Your task to perform on an android device: uninstall "Spotify" Image 0: 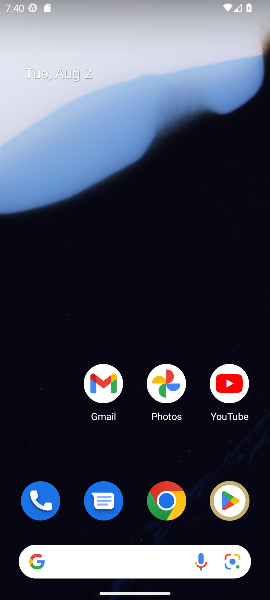
Step 0: drag from (136, 448) to (168, 102)
Your task to perform on an android device: uninstall "Spotify" Image 1: 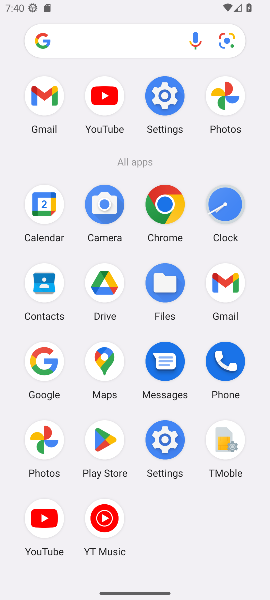
Step 1: click (105, 443)
Your task to perform on an android device: uninstall "Spotify" Image 2: 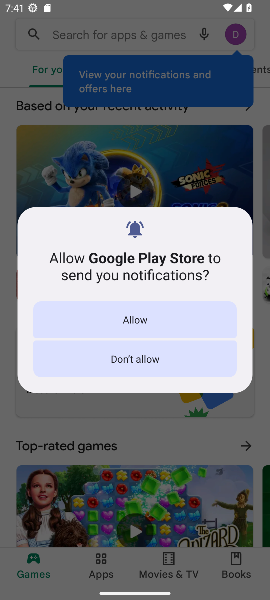
Step 2: press home button
Your task to perform on an android device: uninstall "Spotify" Image 3: 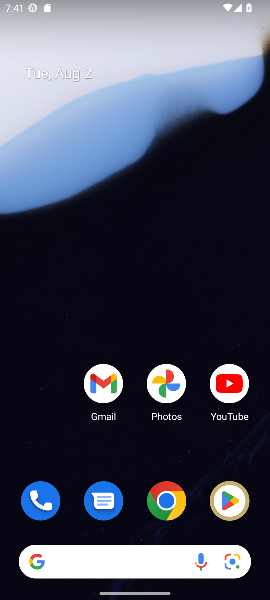
Step 3: drag from (115, 473) to (150, 95)
Your task to perform on an android device: uninstall "Spotify" Image 4: 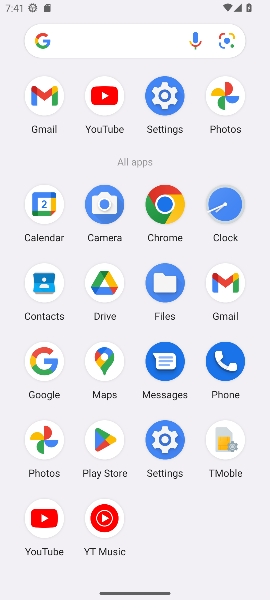
Step 4: click (174, 101)
Your task to perform on an android device: uninstall "Spotify" Image 5: 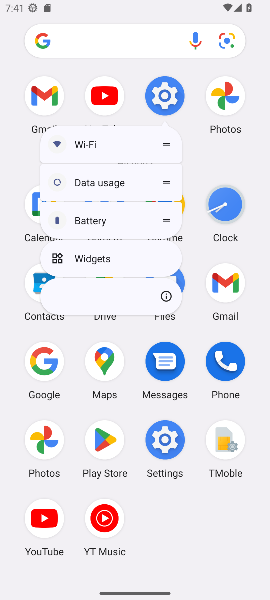
Step 5: click (99, 449)
Your task to perform on an android device: uninstall "Spotify" Image 6: 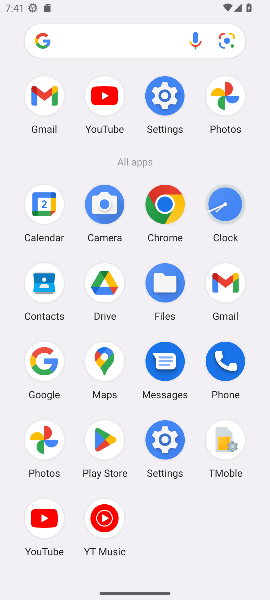
Step 6: click (99, 449)
Your task to perform on an android device: uninstall "Spotify" Image 7: 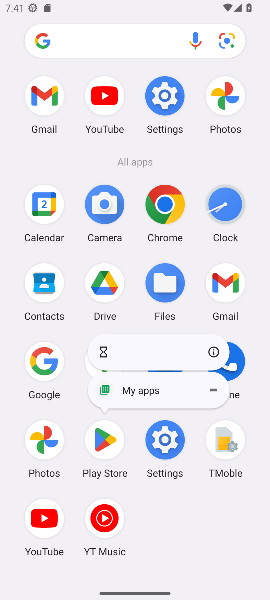
Step 7: click (211, 349)
Your task to perform on an android device: uninstall "Spotify" Image 8: 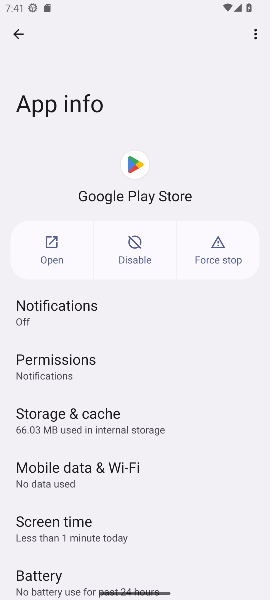
Step 8: click (58, 245)
Your task to perform on an android device: uninstall "Spotify" Image 9: 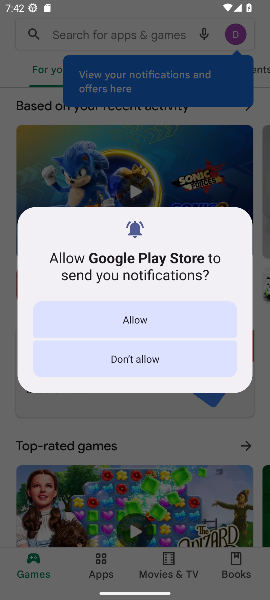
Step 9: press home button
Your task to perform on an android device: uninstall "Spotify" Image 10: 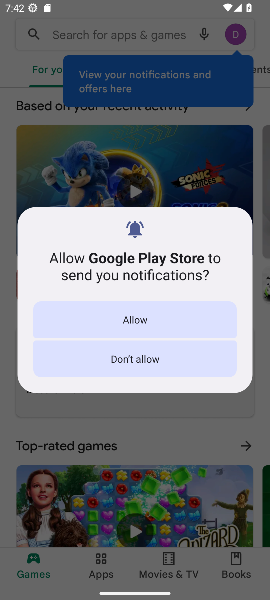
Step 10: press home button
Your task to perform on an android device: uninstall "Spotify" Image 11: 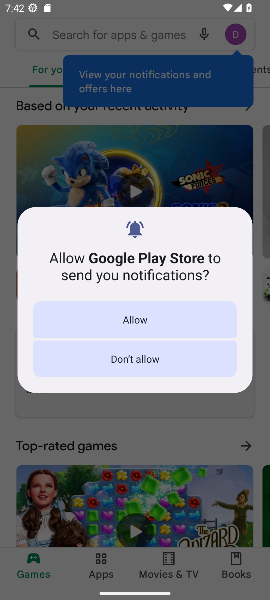
Step 11: press home button
Your task to perform on an android device: uninstall "Spotify" Image 12: 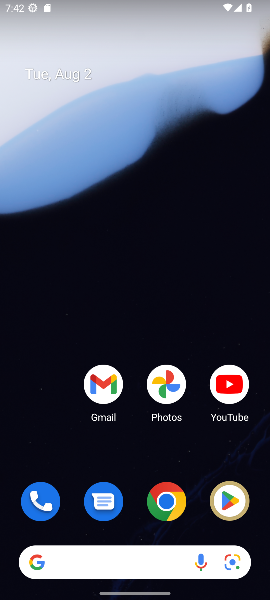
Step 12: drag from (157, 517) to (219, 85)
Your task to perform on an android device: uninstall "Spotify" Image 13: 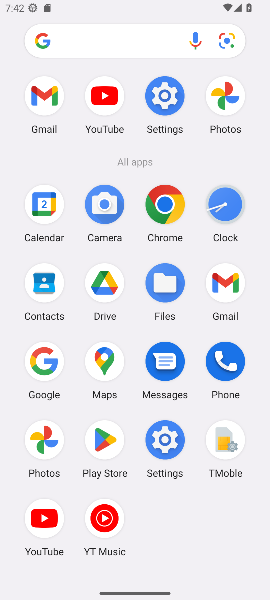
Step 13: click (102, 443)
Your task to perform on an android device: uninstall "Spotify" Image 14: 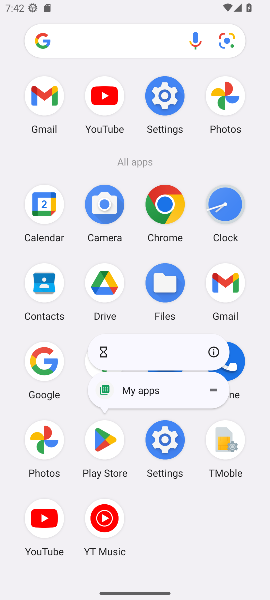
Step 14: click (213, 359)
Your task to perform on an android device: uninstall "Spotify" Image 15: 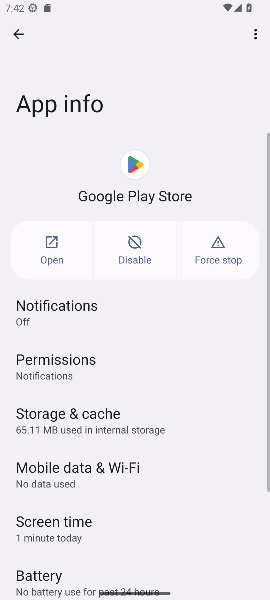
Step 15: click (60, 245)
Your task to perform on an android device: uninstall "Spotify" Image 16: 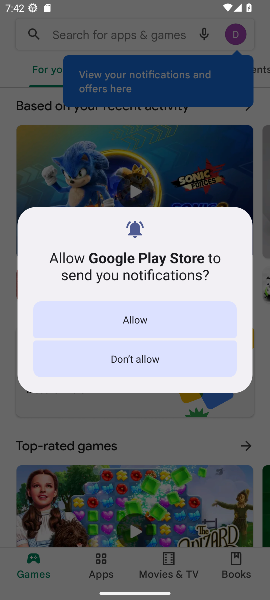
Step 16: click (139, 321)
Your task to perform on an android device: uninstall "Spotify" Image 17: 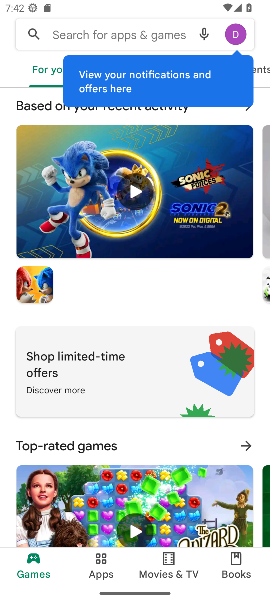
Step 17: click (91, 29)
Your task to perform on an android device: uninstall "Spotify" Image 18: 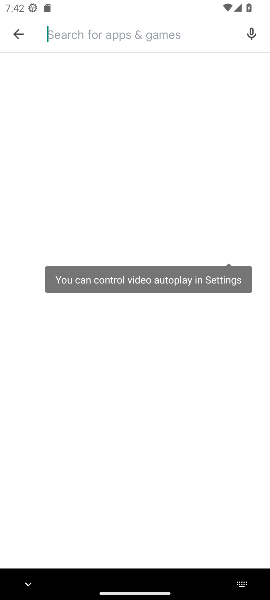
Step 18: type "Spotify"
Your task to perform on an android device: uninstall "Spotify" Image 19: 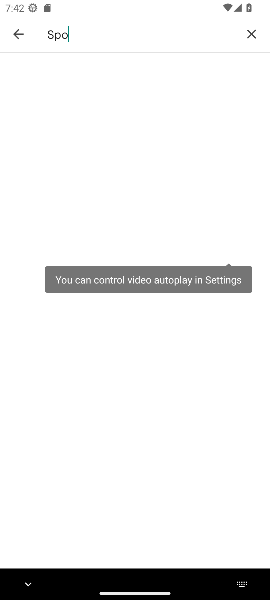
Step 19: type ""
Your task to perform on an android device: uninstall "Spotify" Image 20: 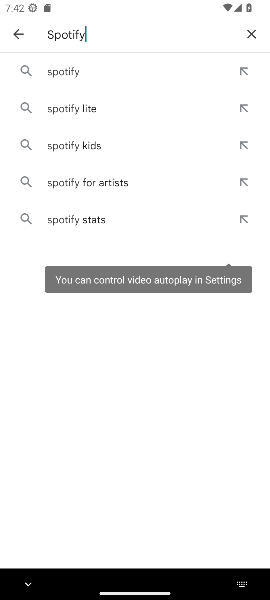
Step 20: click (87, 74)
Your task to perform on an android device: uninstall "Spotify" Image 21: 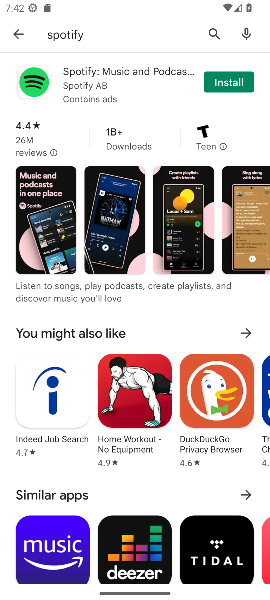
Step 21: click (105, 82)
Your task to perform on an android device: uninstall "Spotify" Image 22: 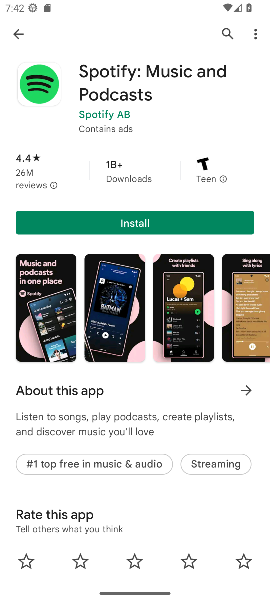
Step 22: task complete